Your task to perform on an android device: set the timer Image 0: 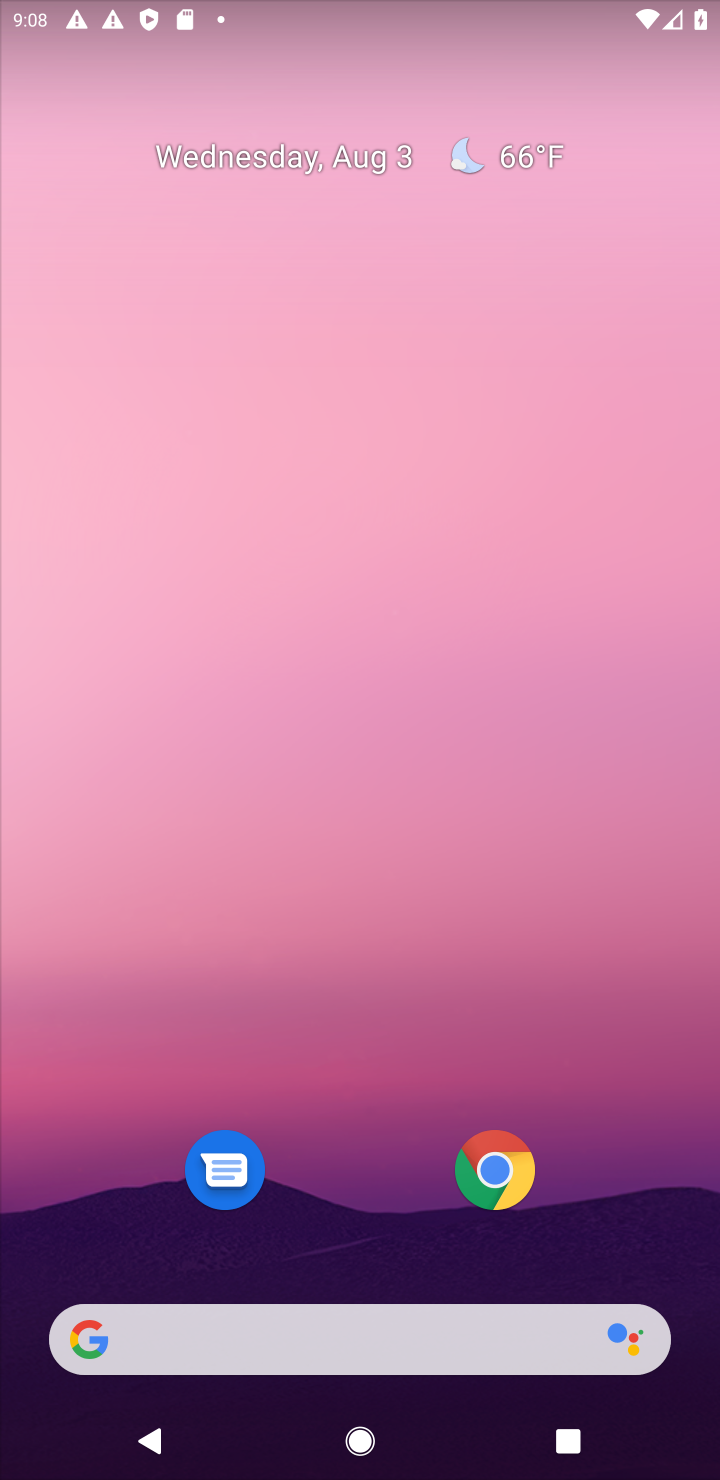
Step 0: drag from (698, 1247) to (511, 396)
Your task to perform on an android device: set the timer Image 1: 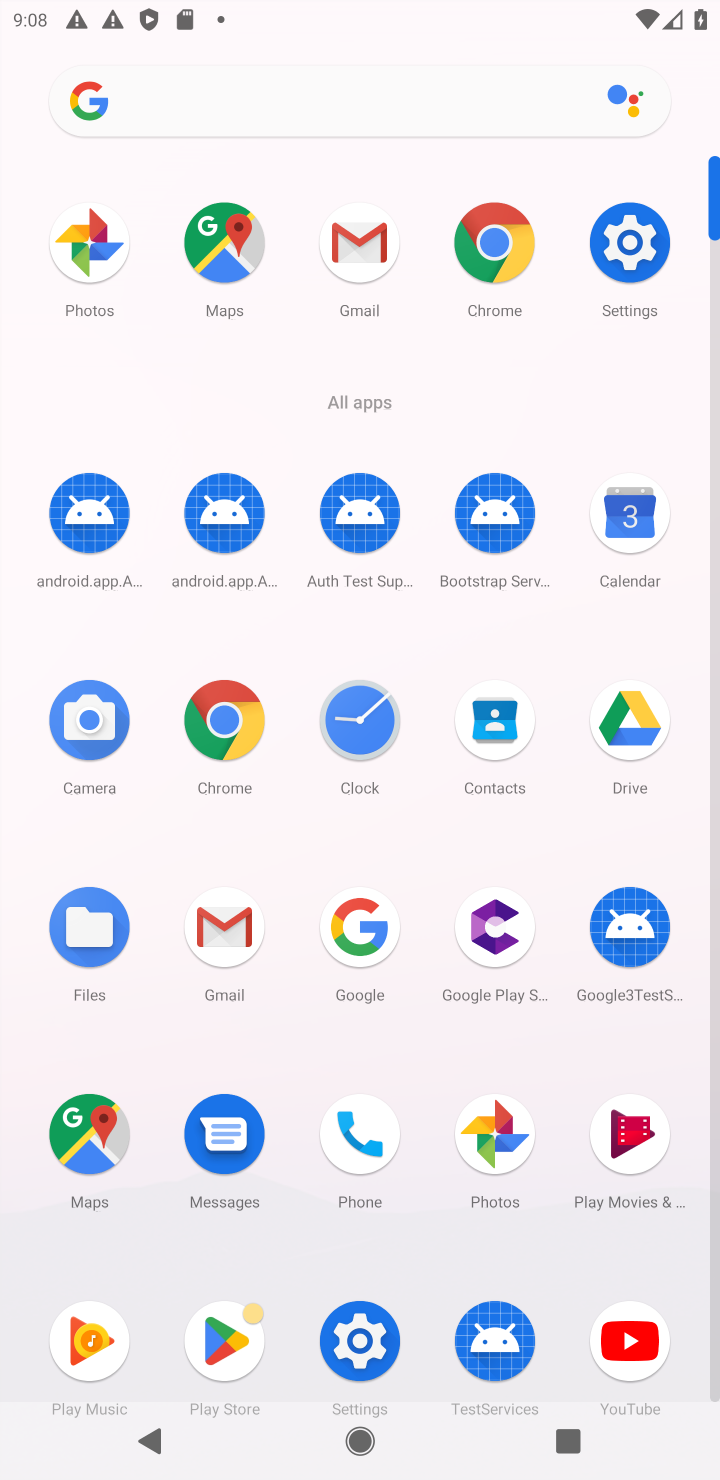
Step 1: click (348, 733)
Your task to perform on an android device: set the timer Image 2: 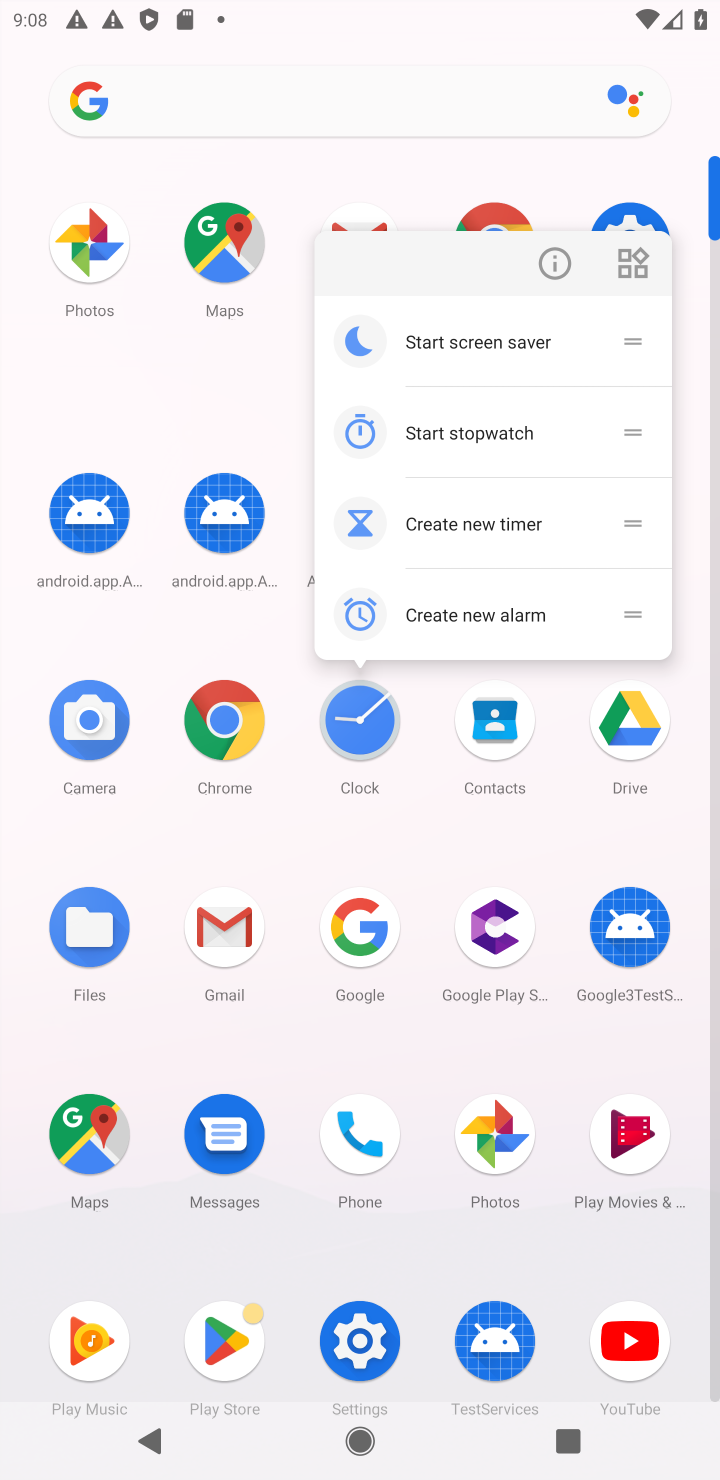
Step 2: click (348, 733)
Your task to perform on an android device: set the timer Image 3: 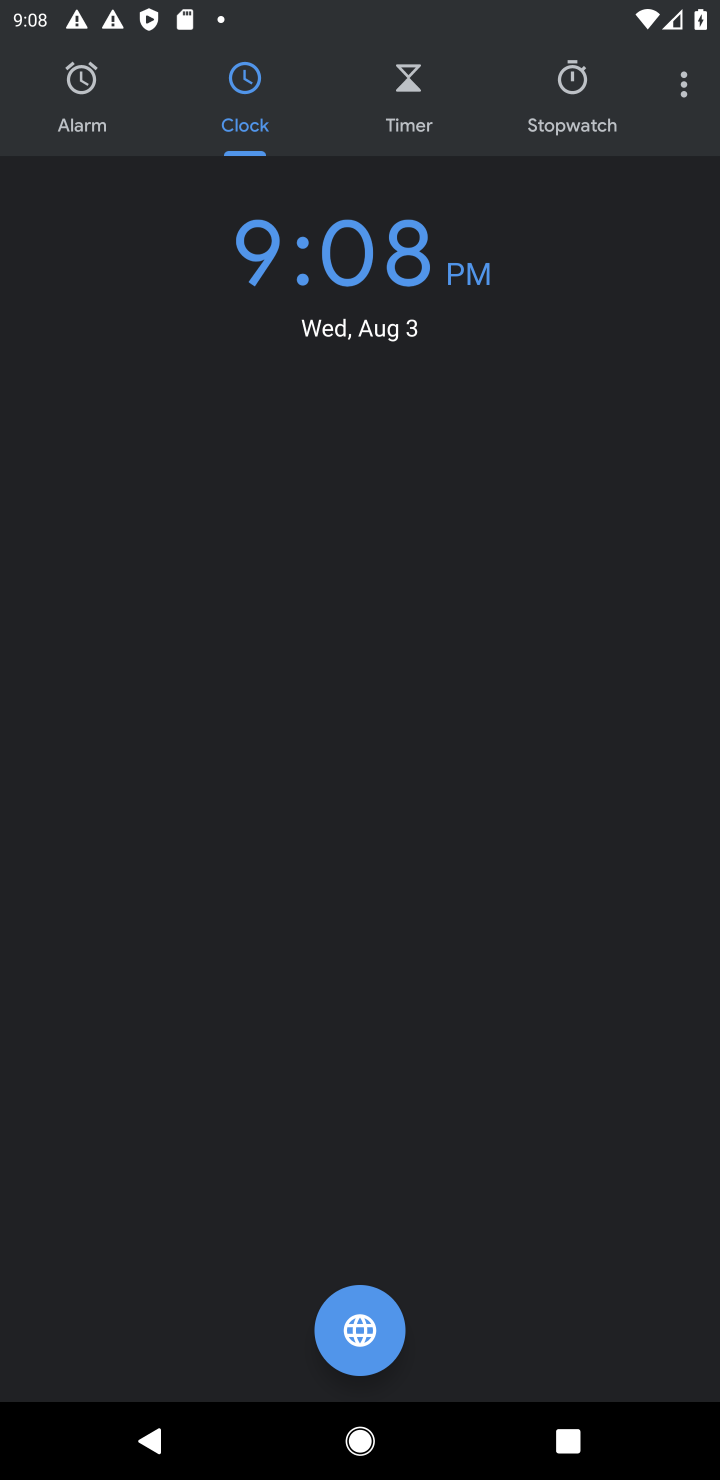
Step 3: click (413, 128)
Your task to perform on an android device: set the timer Image 4: 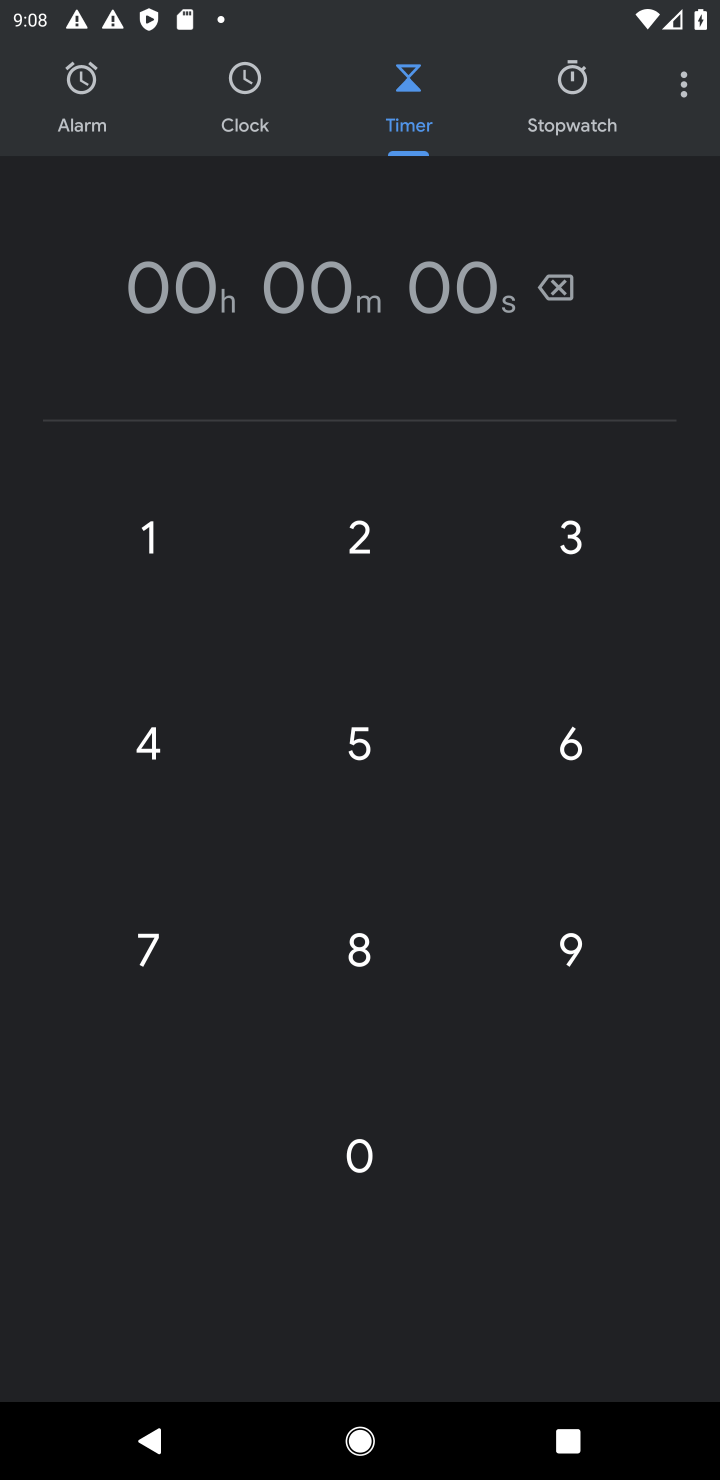
Step 4: type "800000"
Your task to perform on an android device: set the timer Image 5: 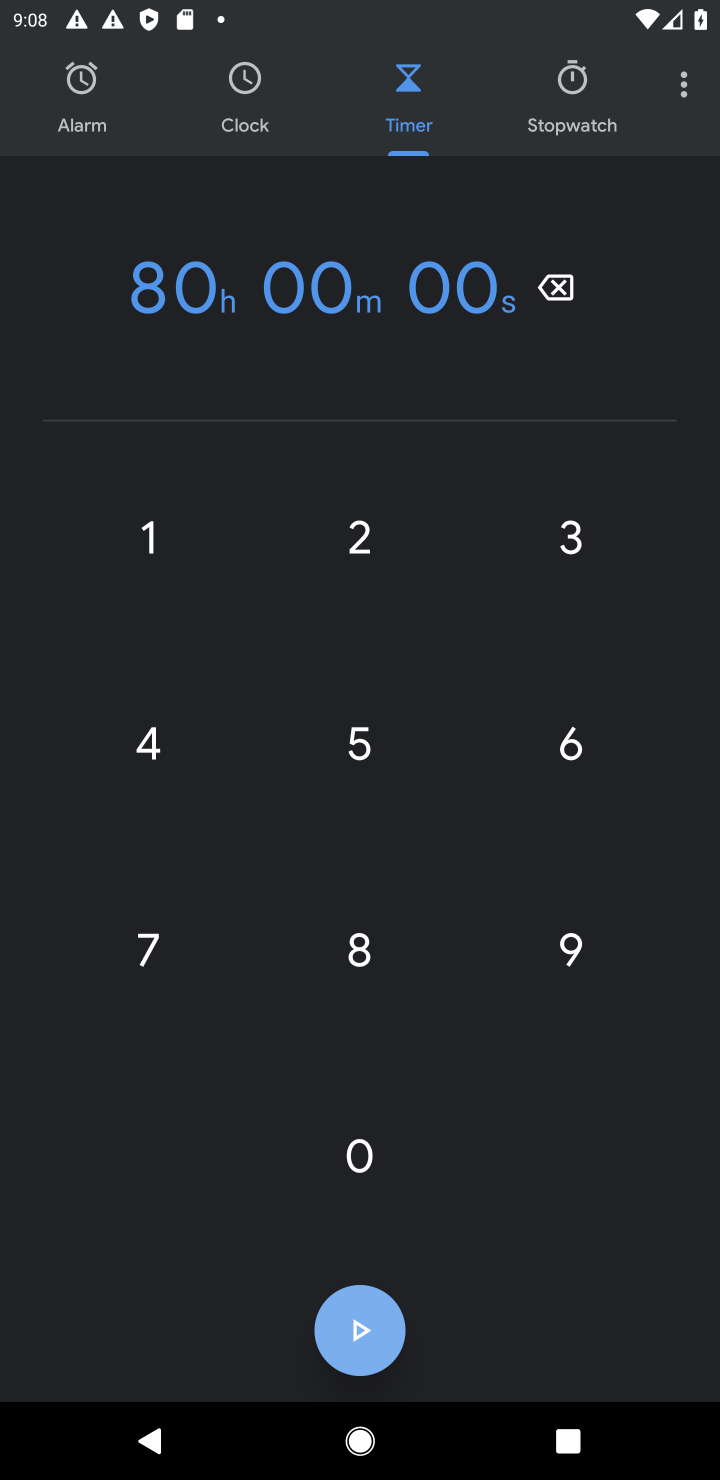
Step 5: click (355, 1335)
Your task to perform on an android device: set the timer Image 6: 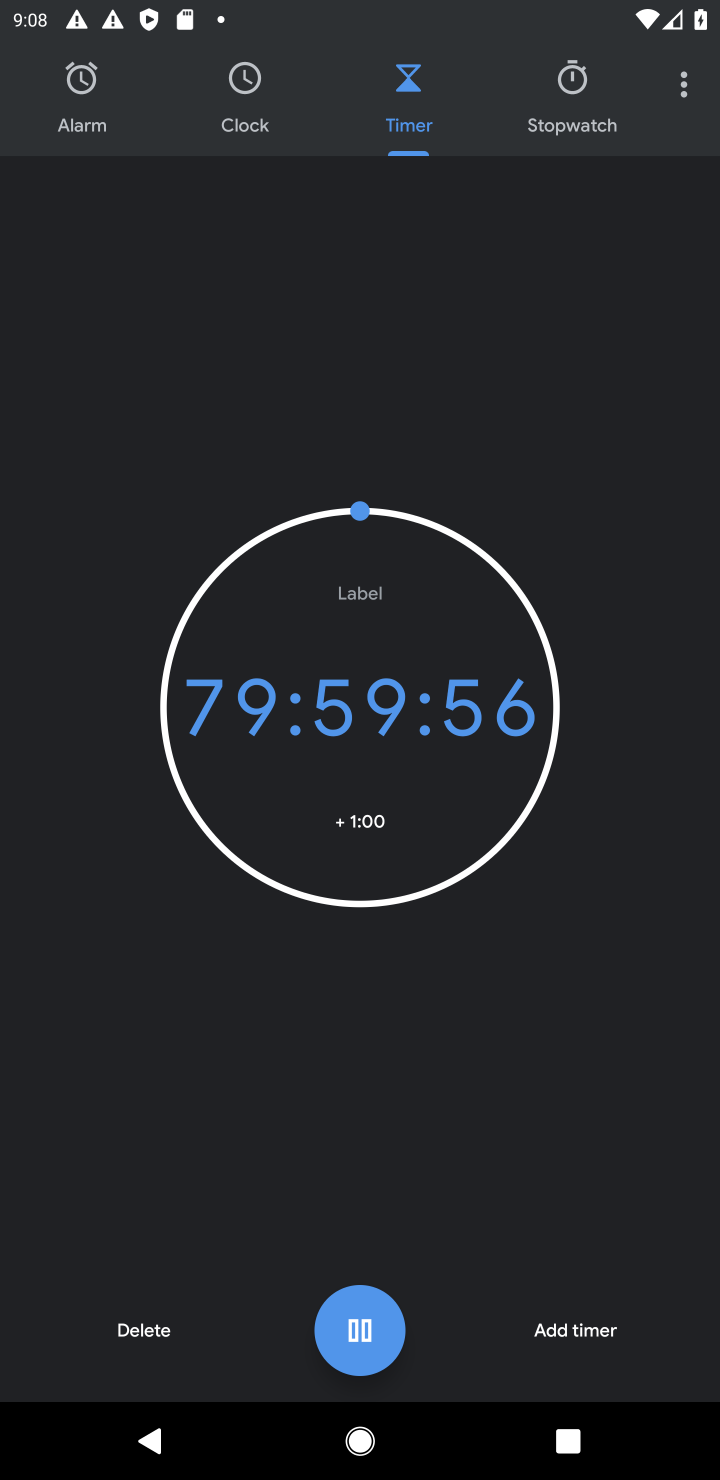
Step 6: task complete